Your task to perform on an android device: toggle improve location accuracy Image 0: 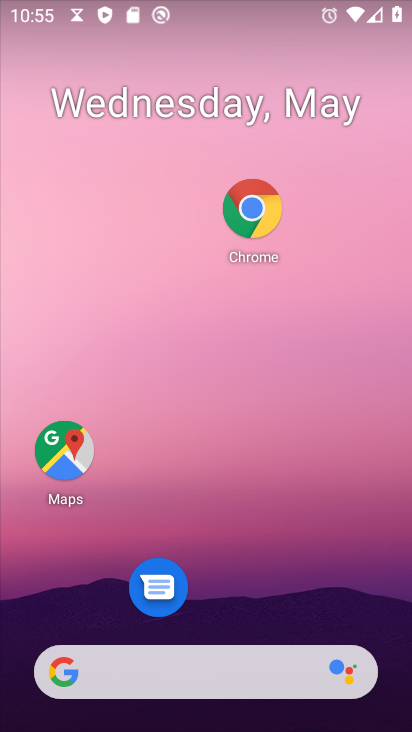
Step 0: drag from (224, 622) to (224, 289)
Your task to perform on an android device: toggle improve location accuracy Image 1: 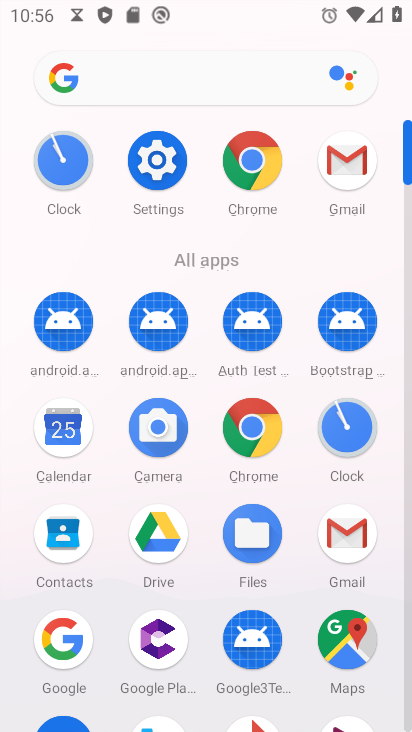
Step 1: click (146, 165)
Your task to perform on an android device: toggle improve location accuracy Image 2: 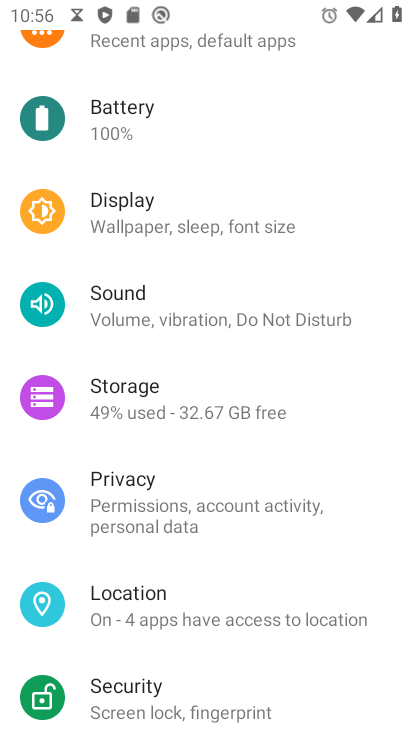
Step 2: click (115, 589)
Your task to perform on an android device: toggle improve location accuracy Image 3: 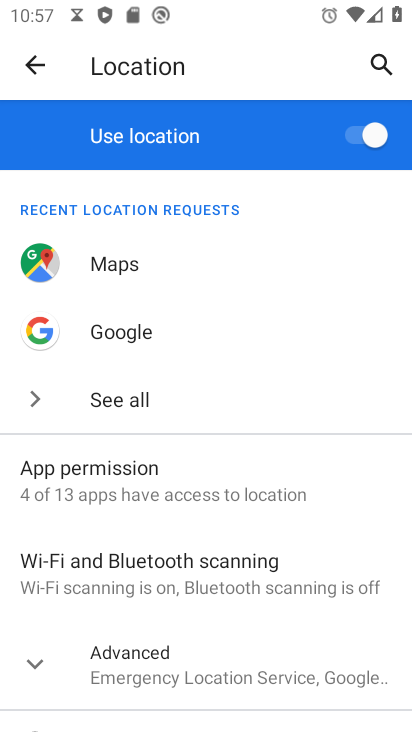
Step 3: click (98, 675)
Your task to perform on an android device: toggle improve location accuracy Image 4: 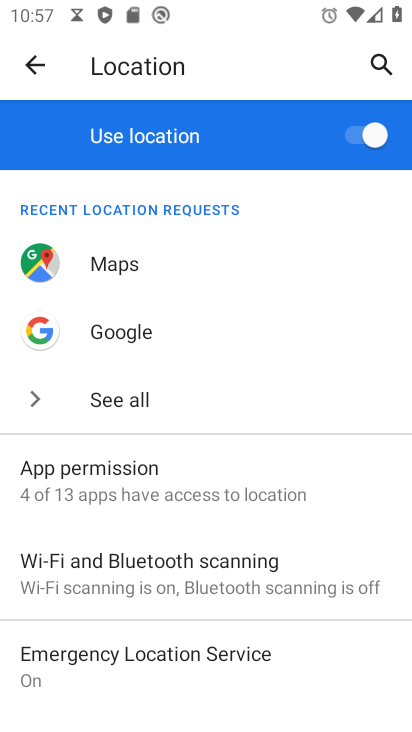
Step 4: drag from (135, 644) to (200, 361)
Your task to perform on an android device: toggle improve location accuracy Image 5: 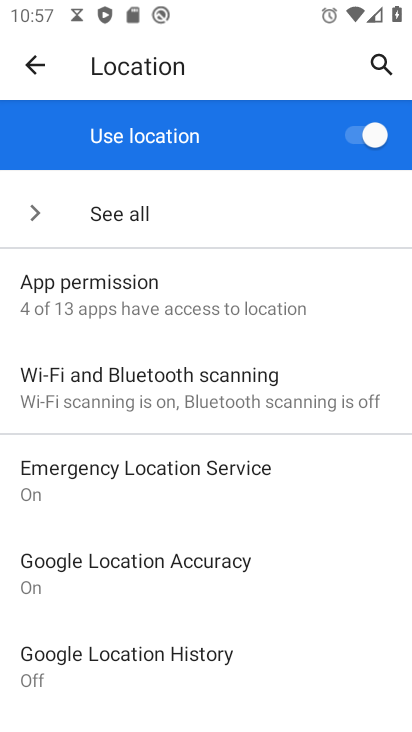
Step 5: click (171, 588)
Your task to perform on an android device: toggle improve location accuracy Image 6: 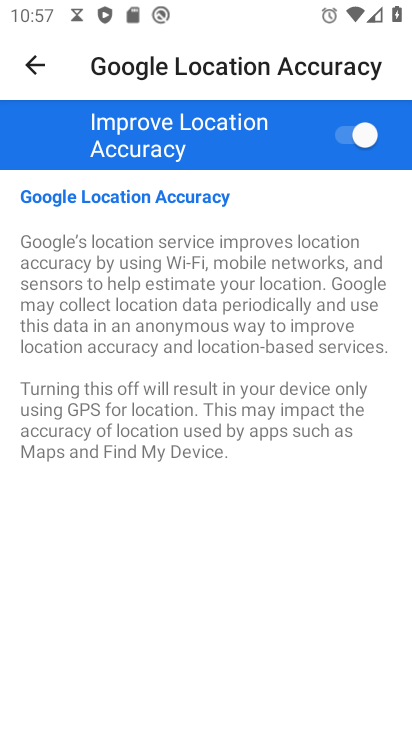
Step 6: click (354, 134)
Your task to perform on an android device: toggle improve location accuracy Image 7: 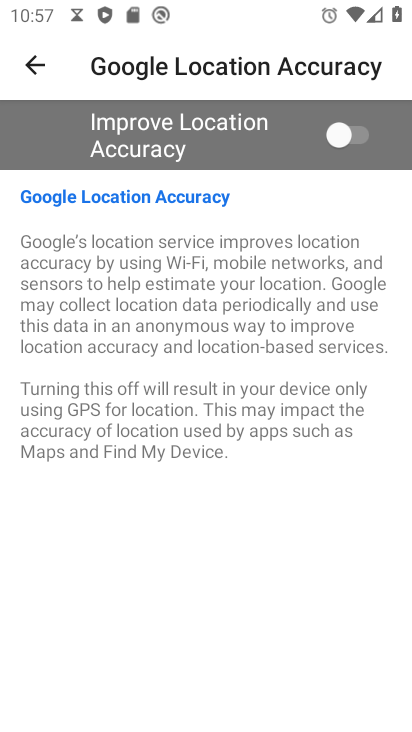
Step 7: click (366, 124)
Your task to perform on an android device: toggle improve location accuracy Image 8: 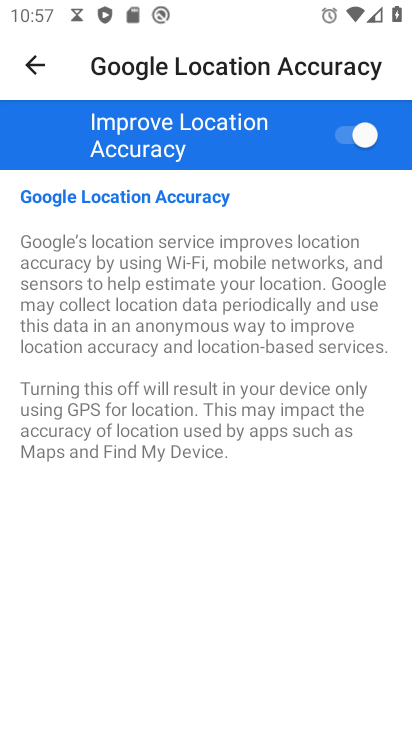
Step 8: task complete